Your task to perform on an android device: Show me recent news Image 0: 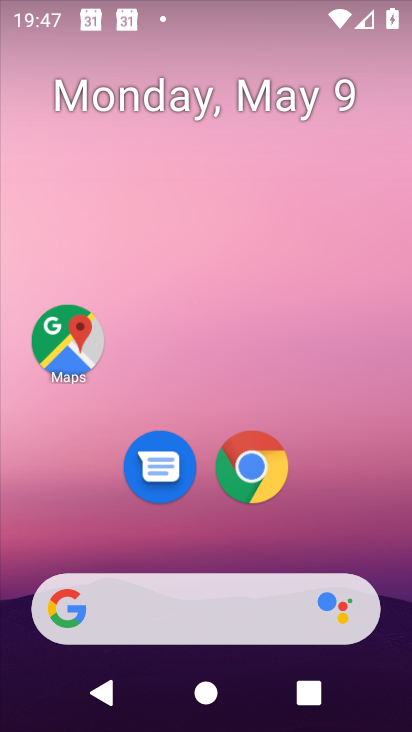
Step 0: drag from (341, 444) to (332, 96)
Your task to perform on an android device: Show me recent news Image 1: 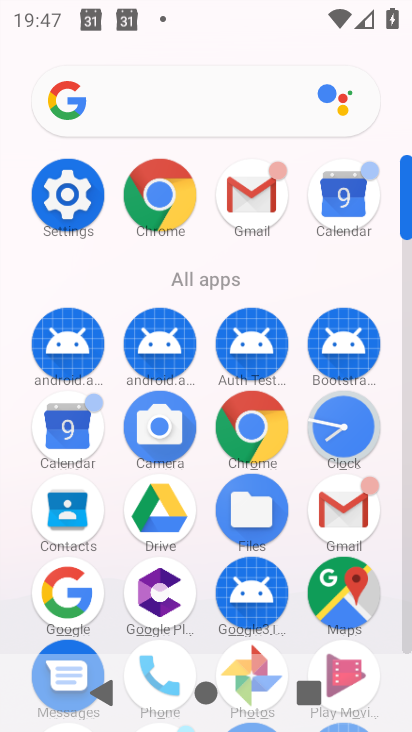
Step 1: click (265, 423)
Your task to perform on an android device: Show me recent news Image 2: 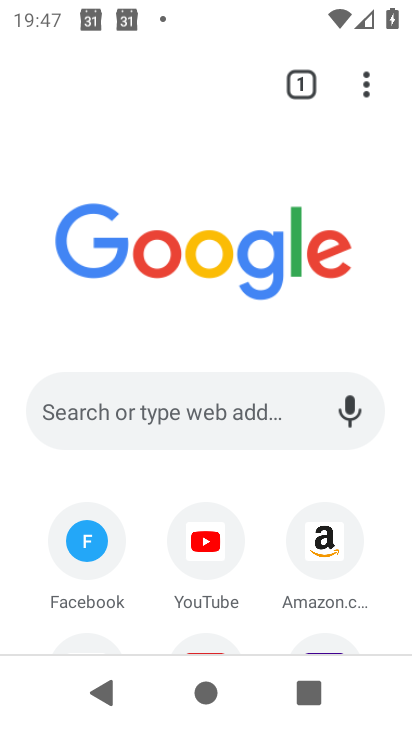
Step 2: click (266, 413)
Your task to perform on an android device: Show me recent news Image 3: 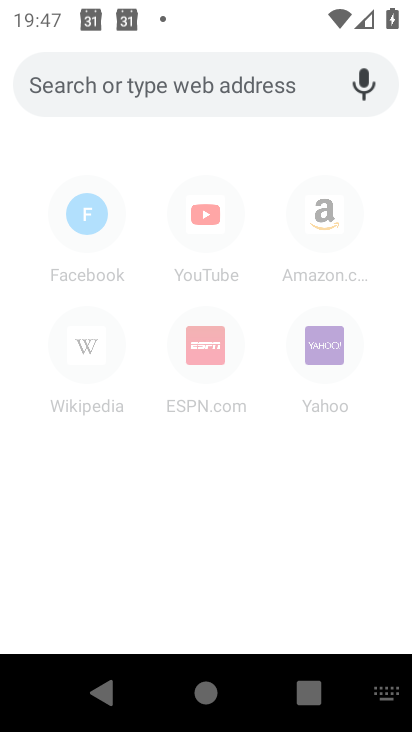
Step 3: type "news"
Your task to perform on an android device: Show me recent news Image 4: 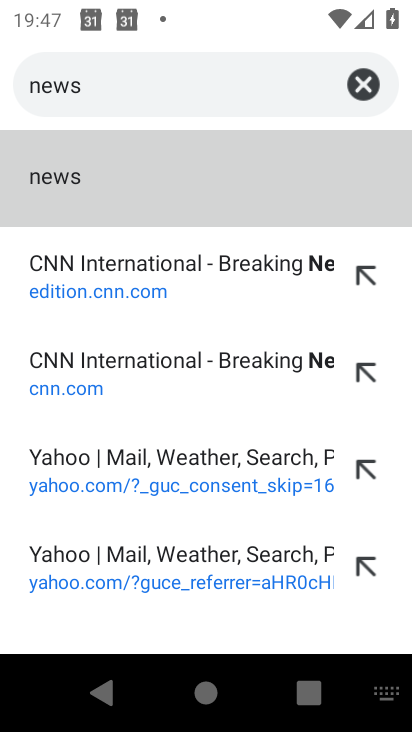
Step 4: click (34, 181)
Your task to perform on an android device: Show me recent news Image 5: 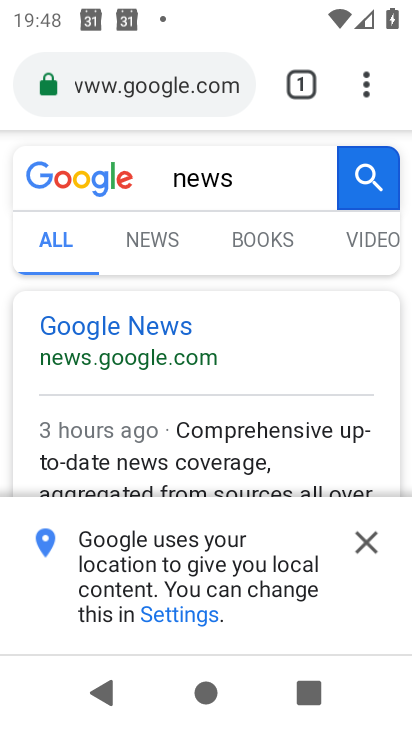
Step 5: click (162, 246)
Your task to perform on an android device: Show me recent news Image 6: 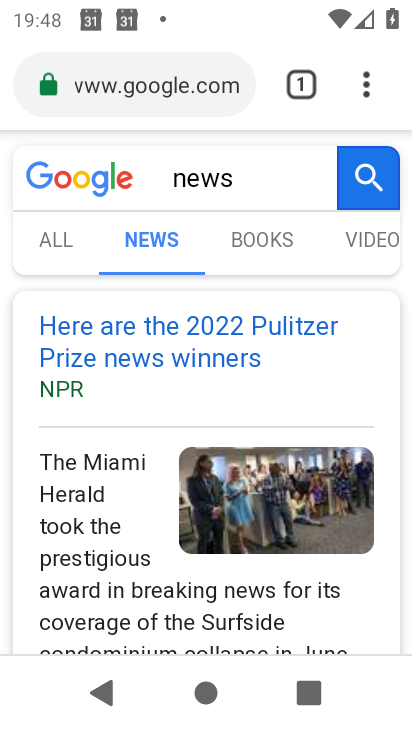
Step 6: task complete